Your task to perform on an android device: Open Amazon Image 0: 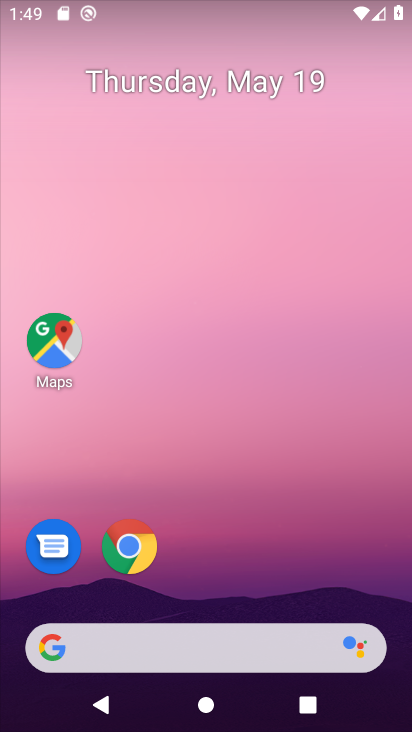
Step 0: click (123, 541)
Your task to perform on an android device: Open Amazon Image 1: 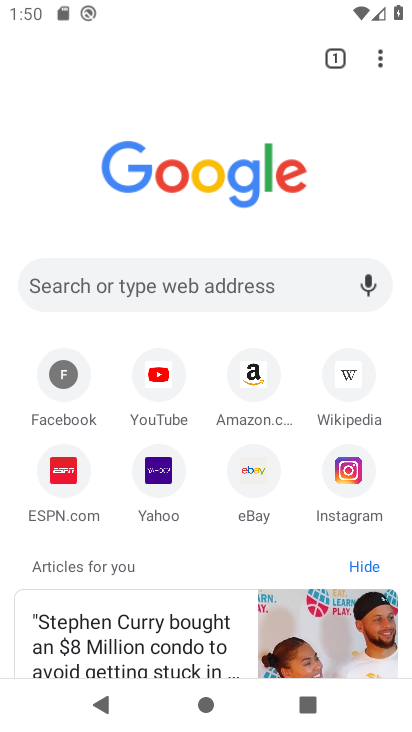
Step 1: click (253, 369)
Your task to perform on an android device: Open Amazon Image 2: 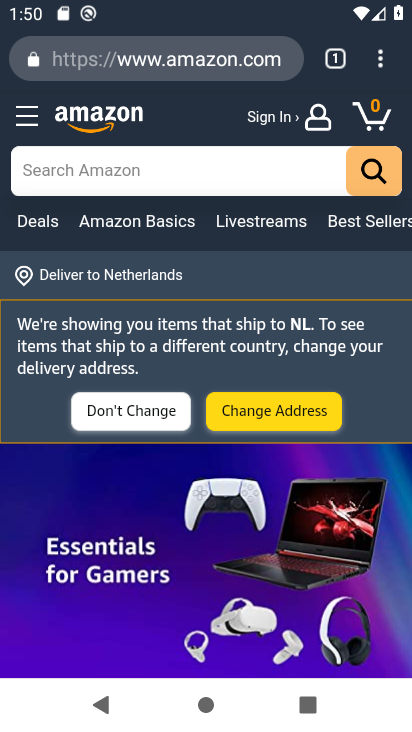
Step 2: task complete